Your task to perform on an android device: star an email in the gmail app Image 0: 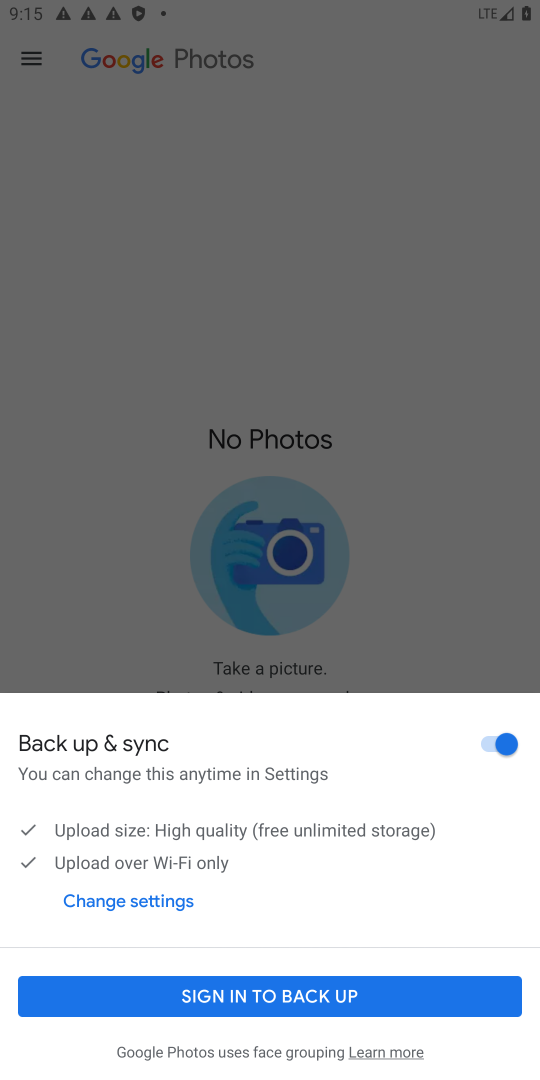
Step 0: press home button
Your task to perform on an android device: star an email in the gmail app Image 1: 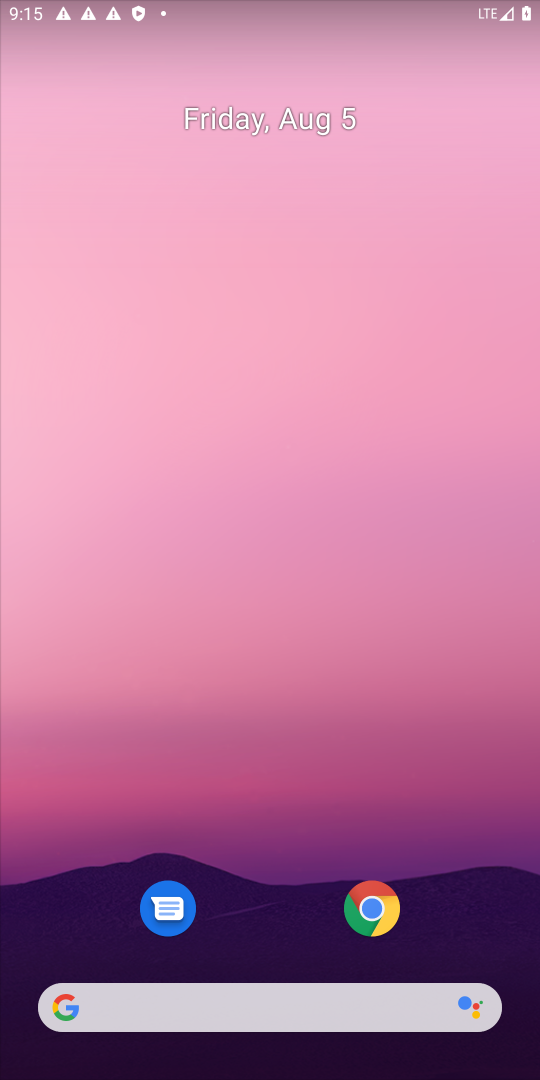
Step 1: drag from (262, 957) to (235, 356)
Your task to perform on an android device: star an email in the gmail app Image 2: 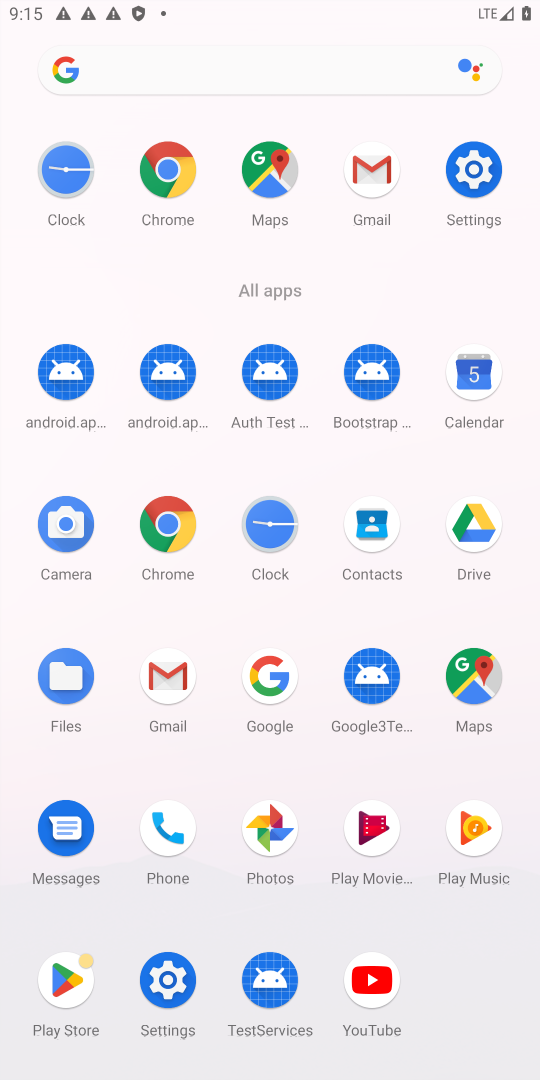
Step 2: click (377, 155)
Your task to perform on an android device: star an email in the gmail app Image 3: 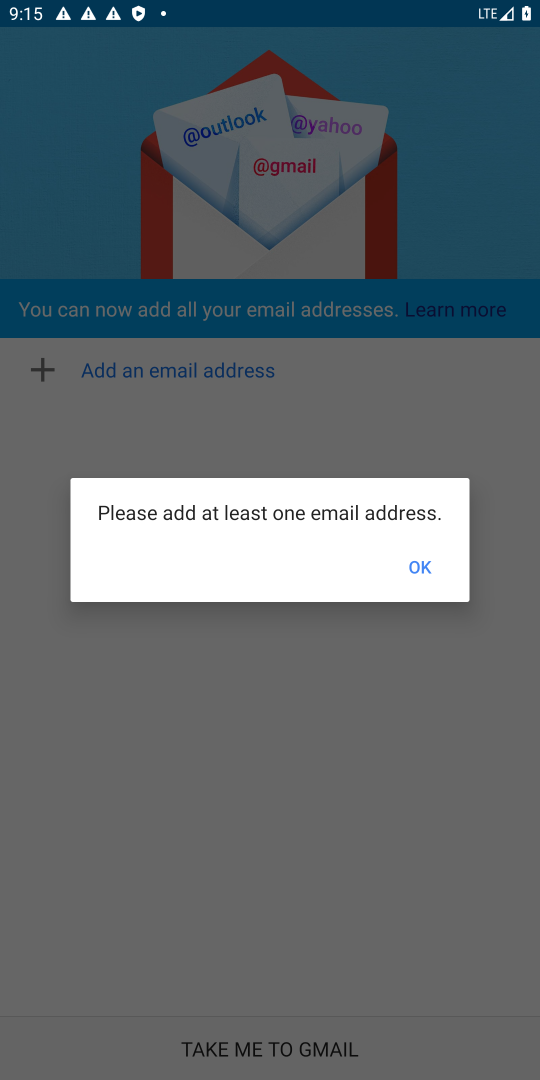
Step 3: task complete